Your task to perform on an android device: Check the weather Image 0: 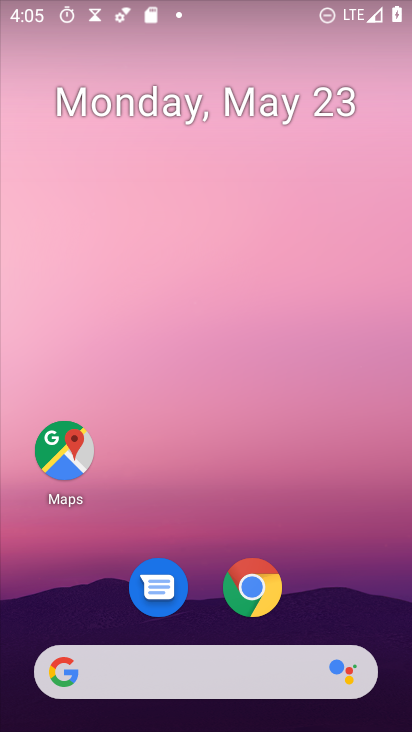
Step 0: click (192, 673)
Your task to perform on an android device: Check the weather Image 1: 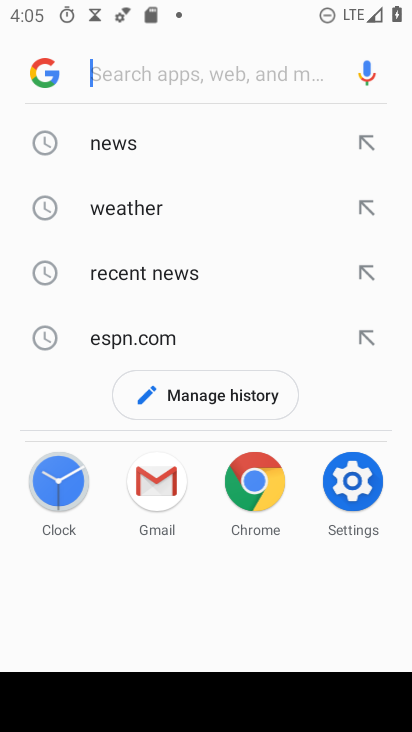
Step 1: click (163, 204)
Your task to perform on an android device: Check the weather Image 2: 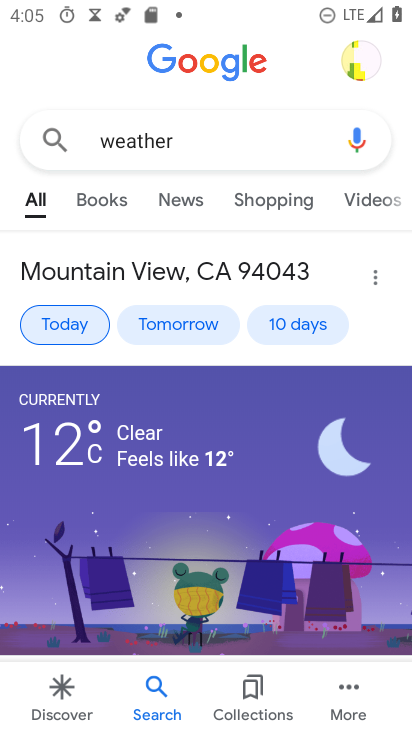
Step 2: task complete